Your task to perform on an android device: set default search engine in the chrome app Image 0: 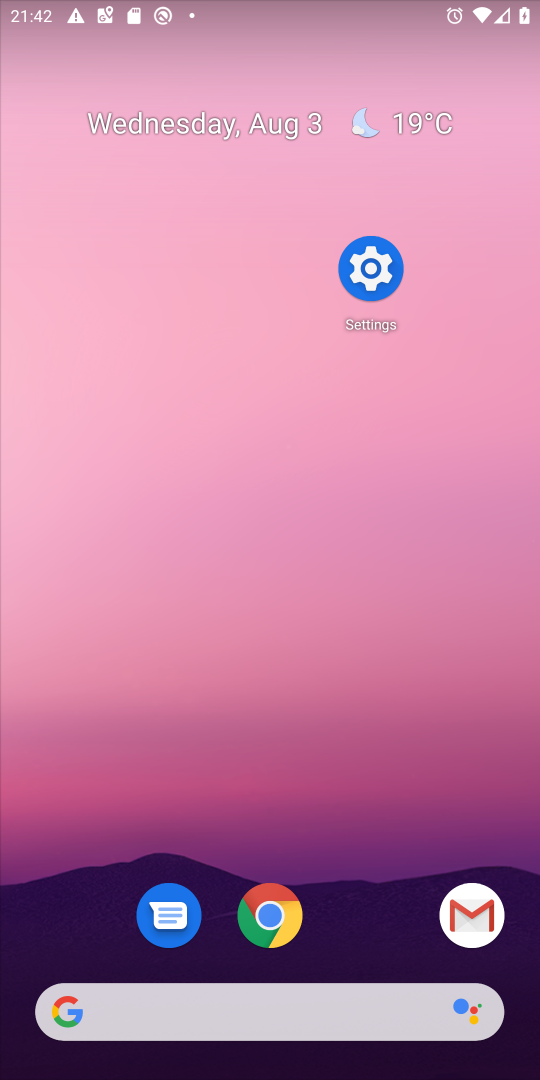
Step 0: press home button
Your task to perform on an android device: set default search engine in the chrome app Image 1: 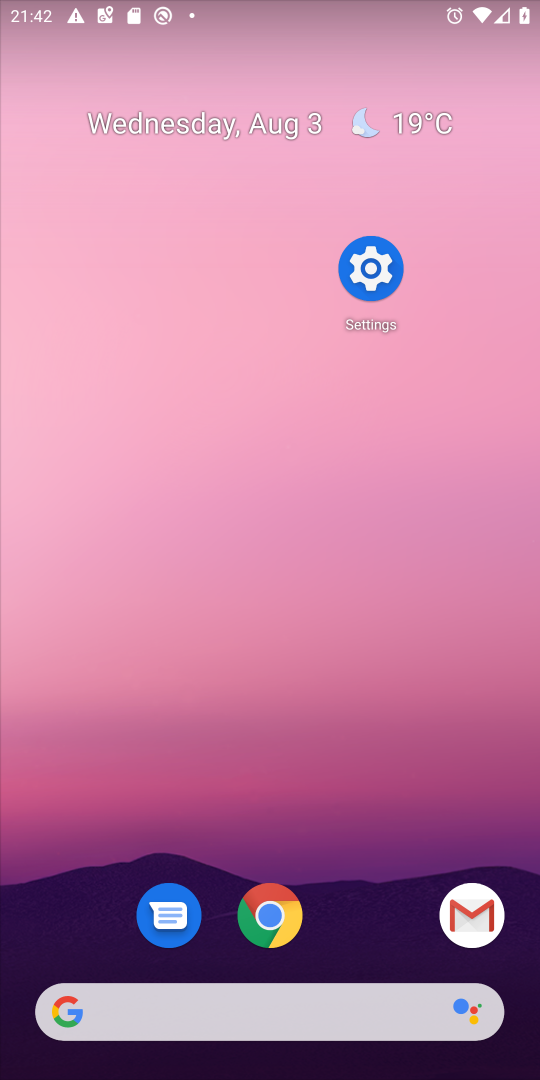
Step 1: drag from (353, 1036) to (376, 385)
Your task to perform on an android device: set default search engine in the chrome app Image 2: 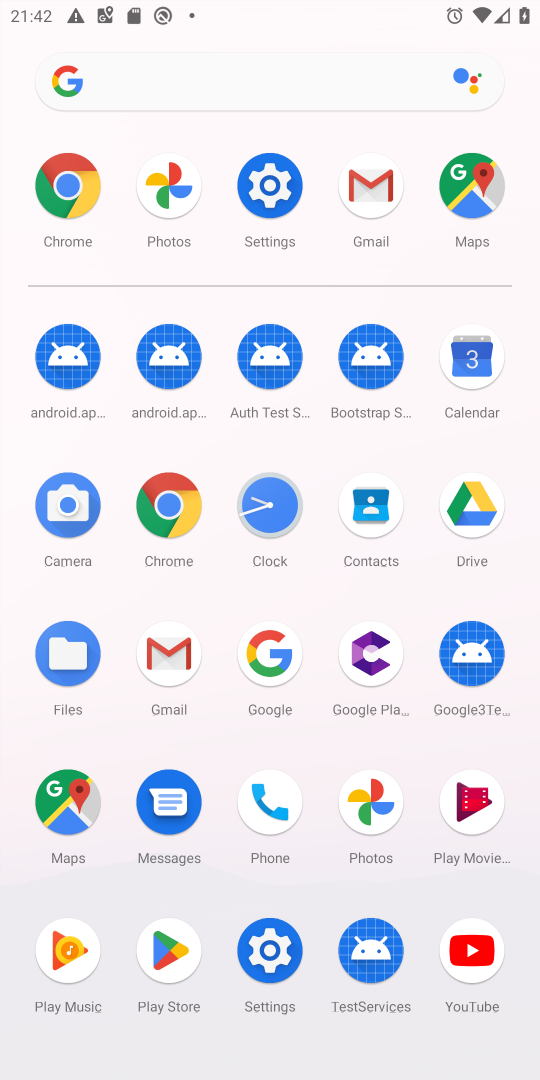
Step 2: click (64, 185)
Your task to perform on an android device: set default search engine in the chrome app Image 3: 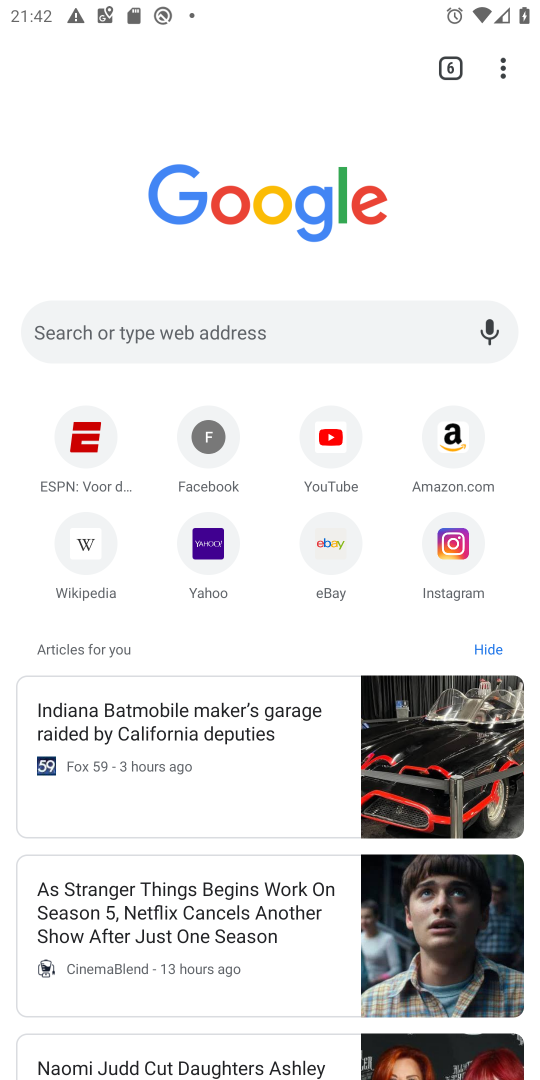
Step 3: click (503, 71)
Your task to perform on an android device: set default search engine in the chrome app Image 4: 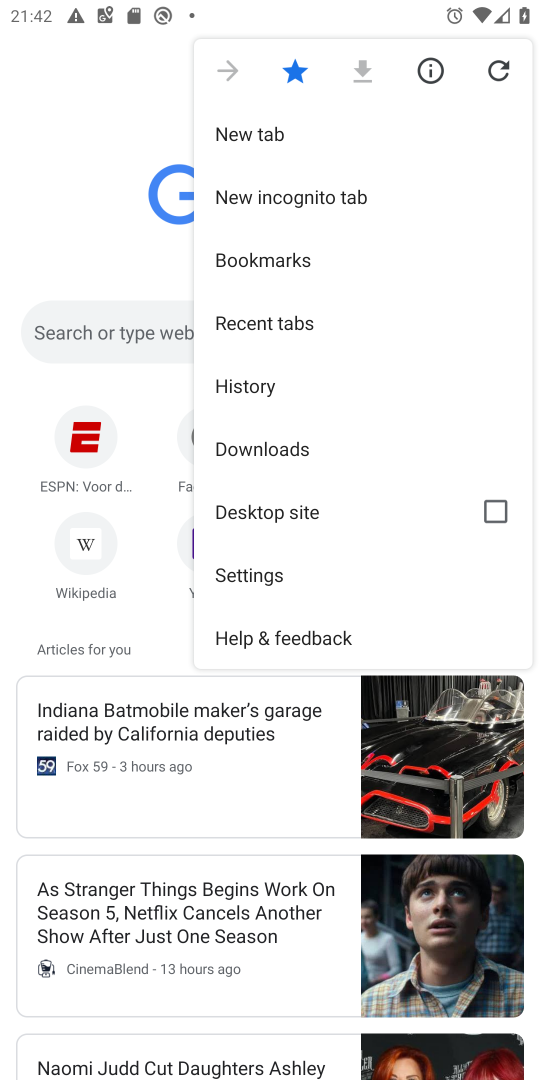
Step 4: click (259, 569)
Your task to perform on an android device: set default search engine in the chrome app Image 5: 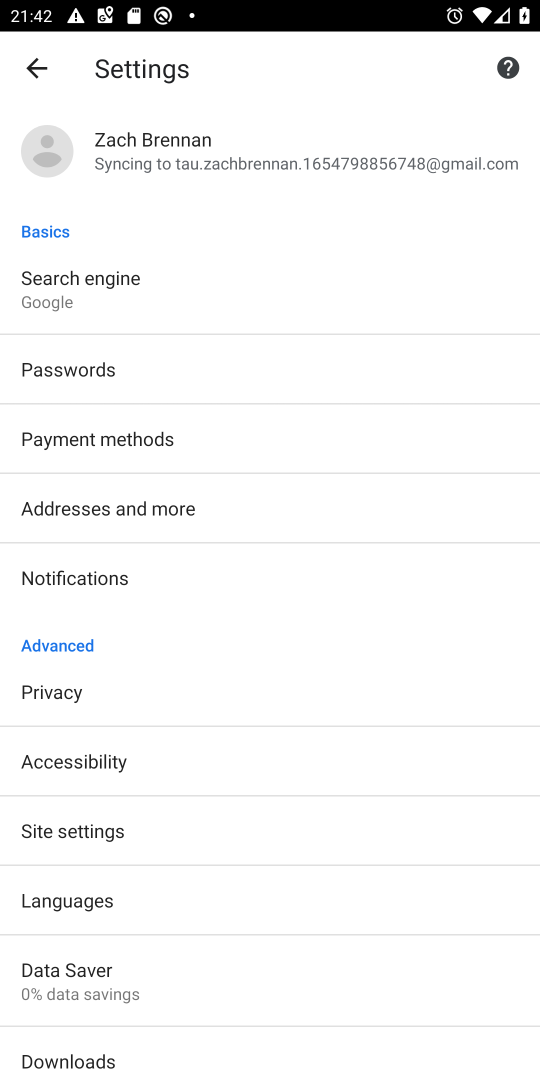
Step 5: click (110, 288)
Your task to perform on an android device: set default search engine in the chrome app Image 6: 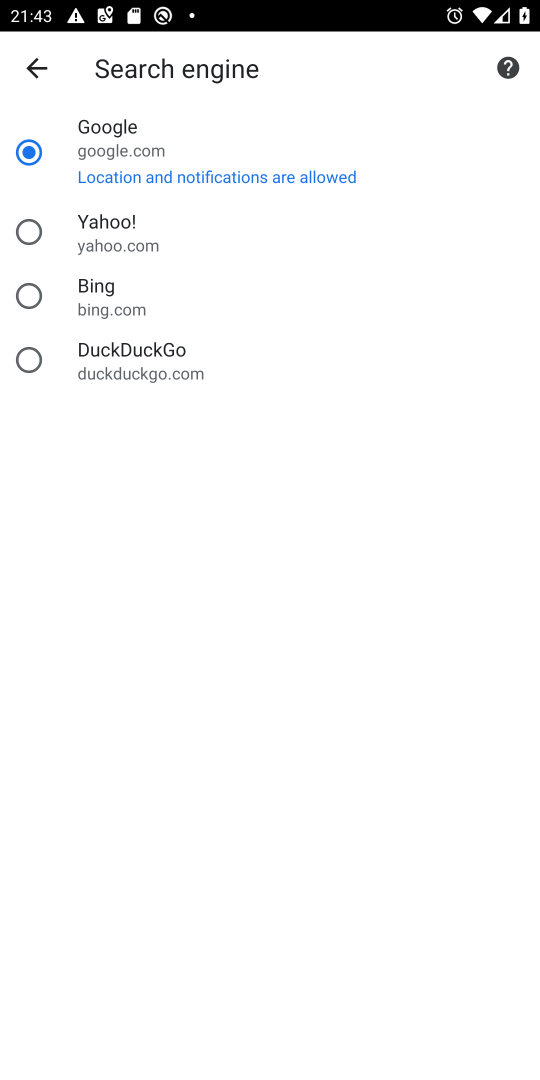
Step 6: task complete